Your task to perform on an android device: Check the weather Image 0: 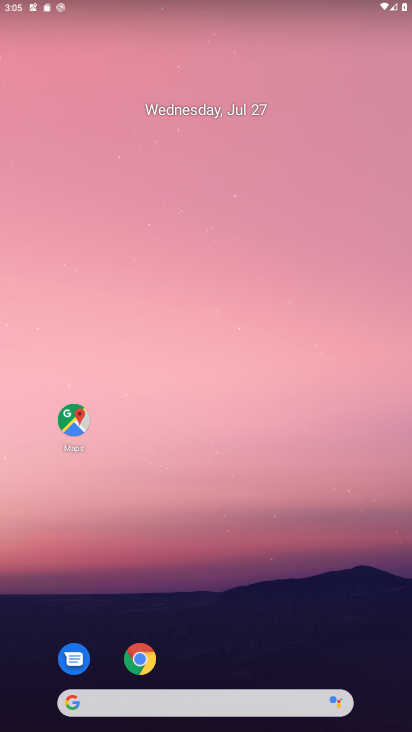
Step 0: drag from (238, 622) to (25, 122)
Your task to perform on an android device: Check the weather Image 1: 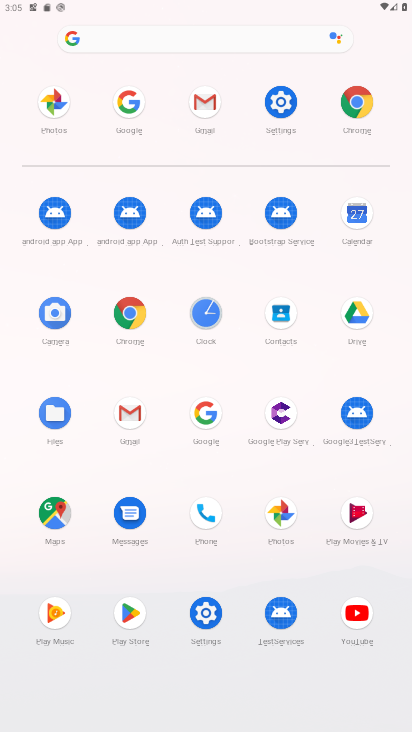
Step 1: click (185, 419)
Your task to perform on an android device: Check the weather Image 2: 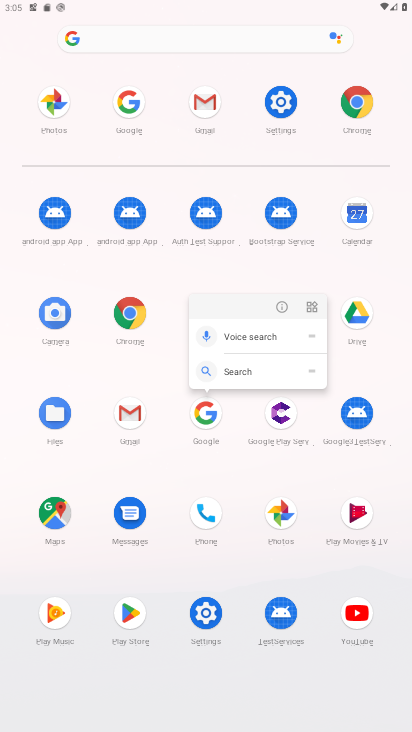
Step 2: click (206, 418)
Your task to perform on an android device: Check the weather Image 3: 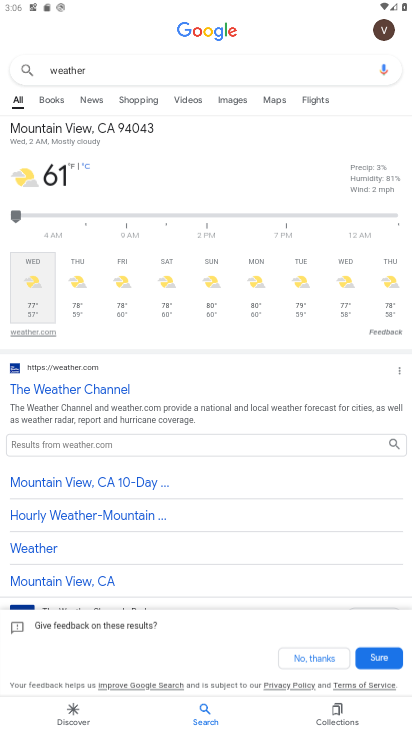
Step 3: task complete